Your task to perform on an android device: Open Google Chrome Image 0: 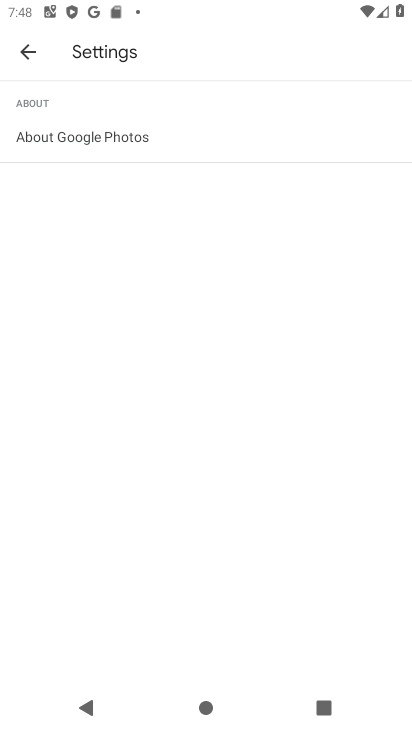
Step 0: press home button
Your task to perform on an android device: Open Google Chrome Image 1: 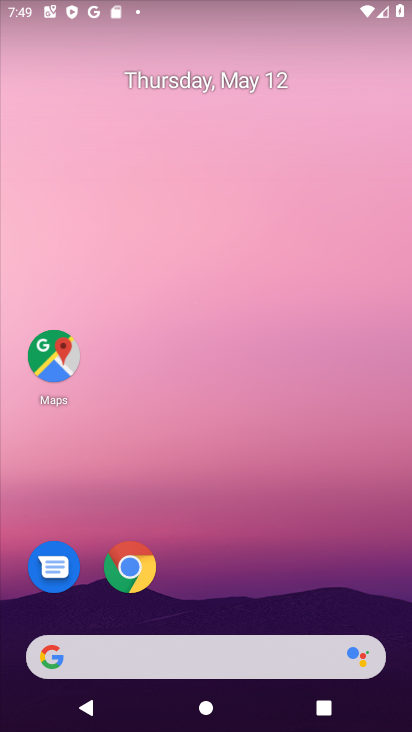
Step 1: drag from (243, 594) to (257, 100)
Your task to perform on an android device: Open Google Chrome Image 2: 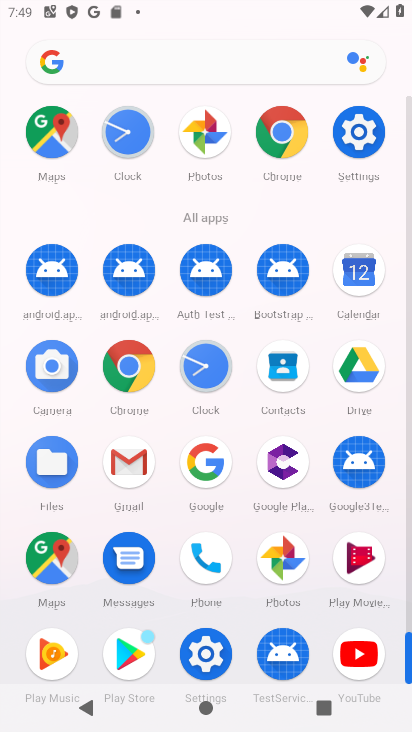
Step 2: click (276, 164)
Your task to perform on an android device: Open Google Chrome Image 3: 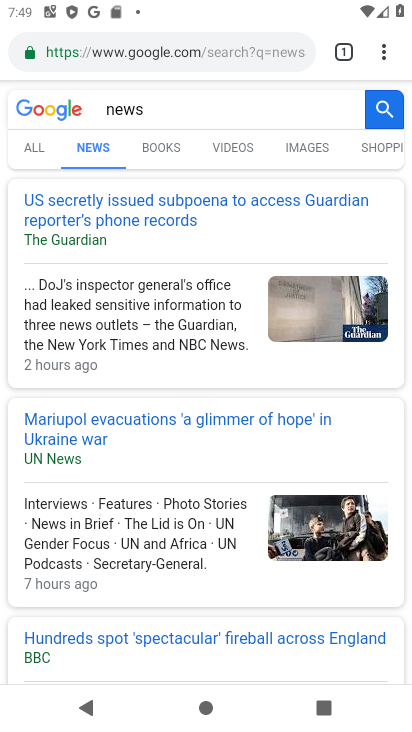
Step 3: task complete